Your task to perform on an android device: Open maps Image 0: 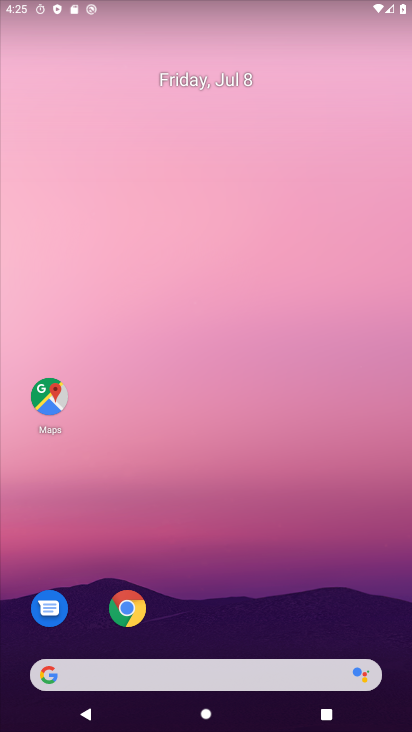
Step 0: press home button
Your task to perform on an android device: Open maps Image 1: 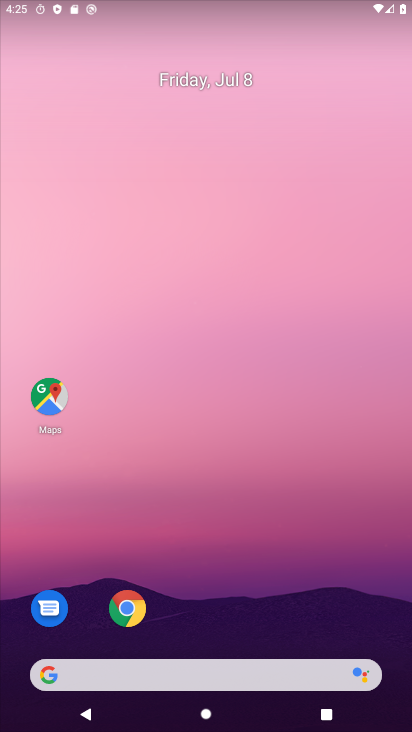
Step 1: click (36, 389)
Your task to perform on an android device: Open maps Image 2: 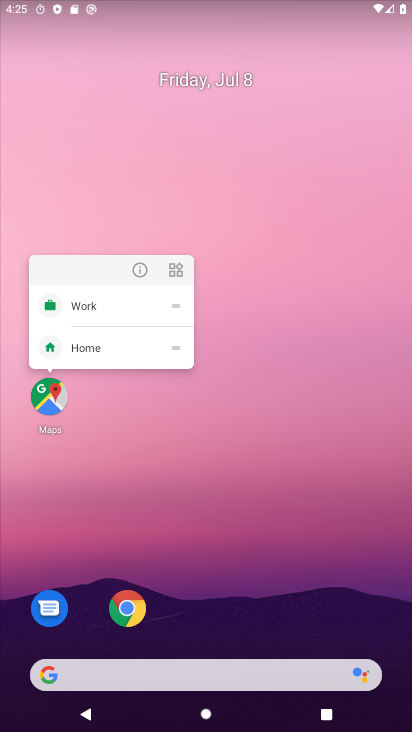
Step 2: click (45, 397)
Your task to perform on an android device: Open maps Image 3: 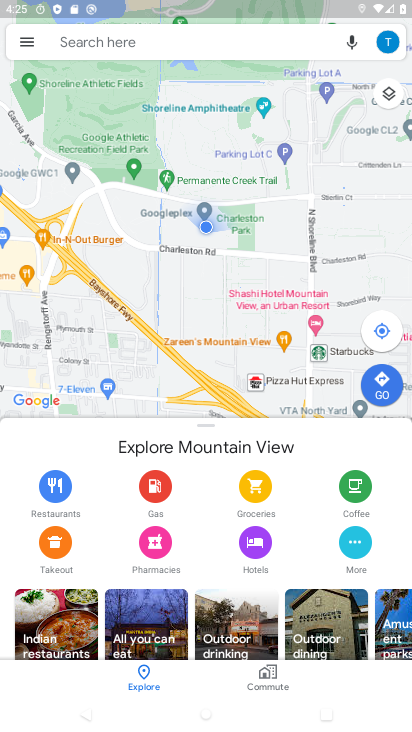
Step 3: task complete